Your task to perform on an android device: install app "Google Play Music" Image 0: 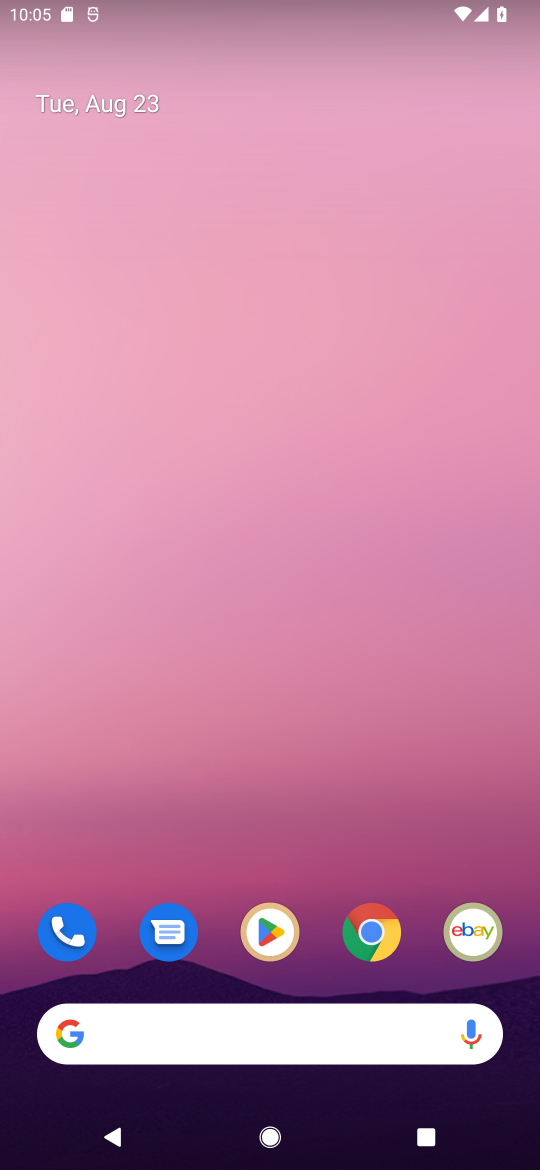
Step 0: click (280, 912)
Your task to perform on an android device: install app "Google Play Music" Image 1: 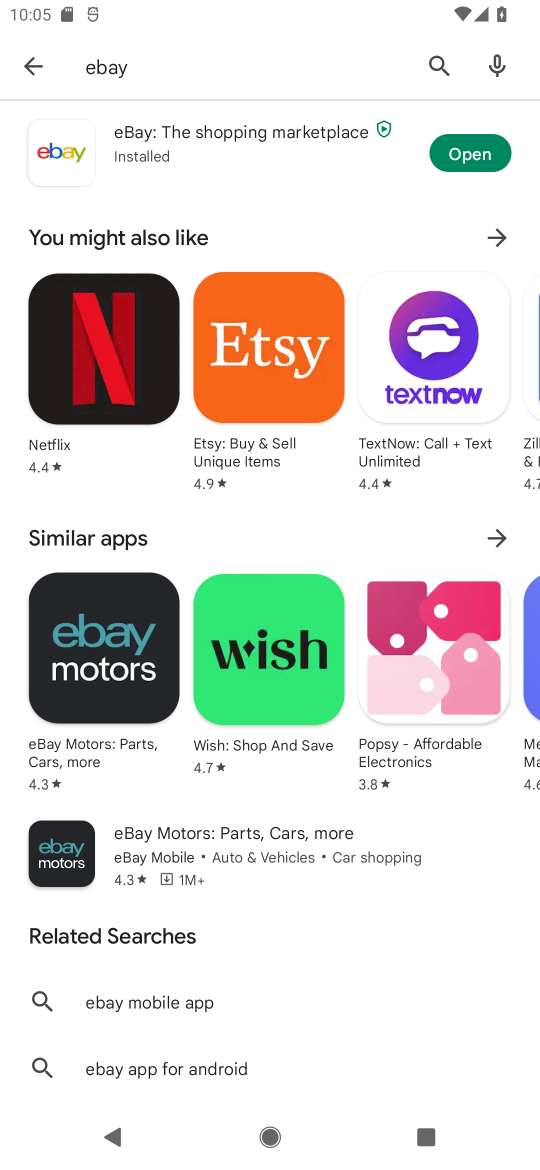
Step 1: click (443, 59)
Your task to perform on an android device: install app "Google Play Music" Image 2: 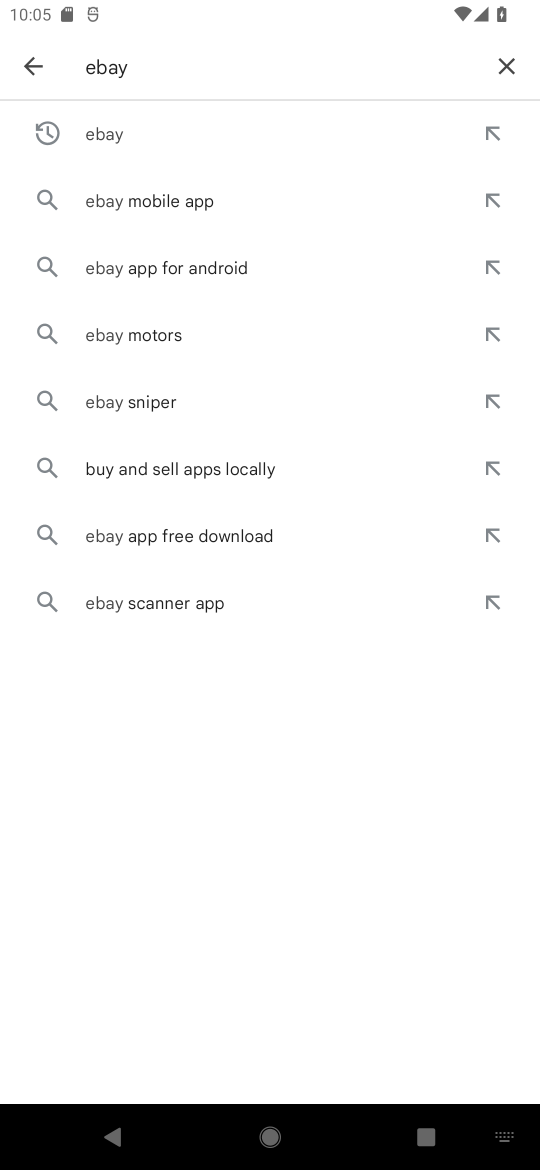
Step 2: click (499, 64)
Your task to perform on an android device: install app "Google Play Music" Image 3: 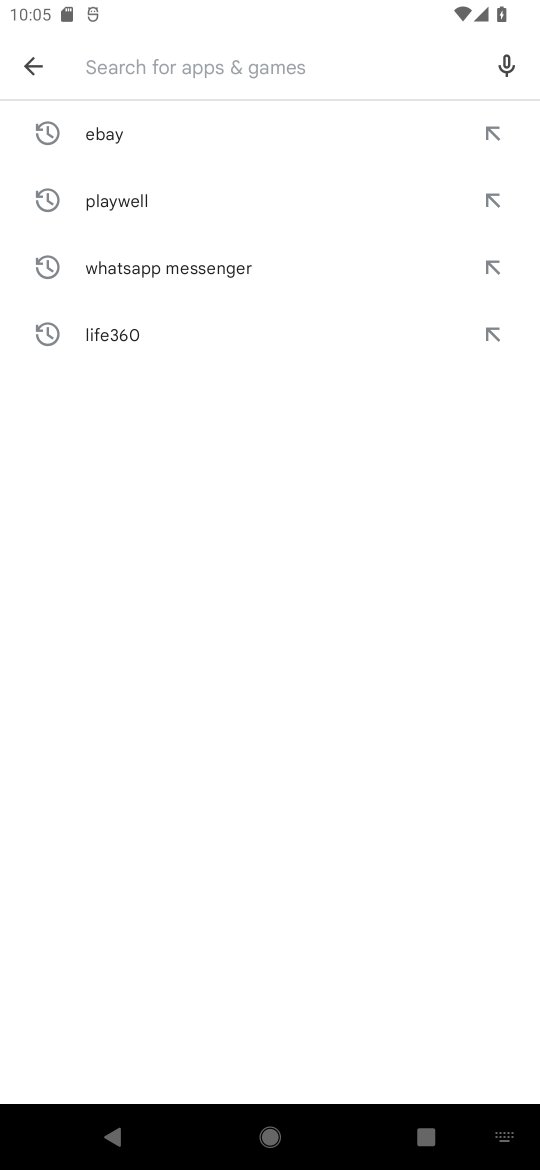
Step 3: click (141, 74)
Your task to perform on an android device: install app "Google Play Music" Image 4: 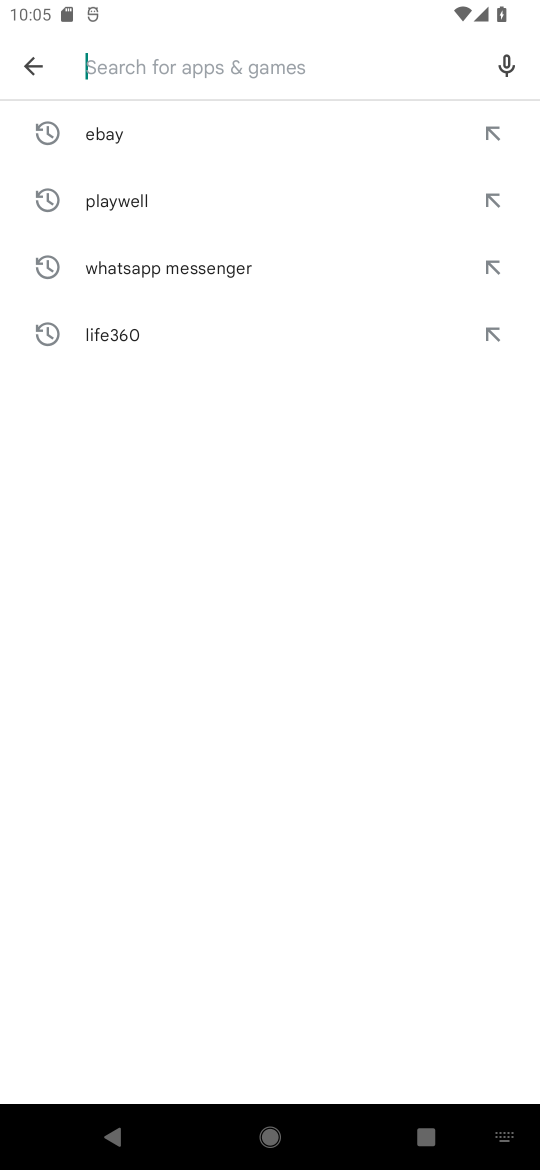
Step 4: type "Google Play Music"
Your task to perform on an android device: install app "Google Play Music" Image 5: 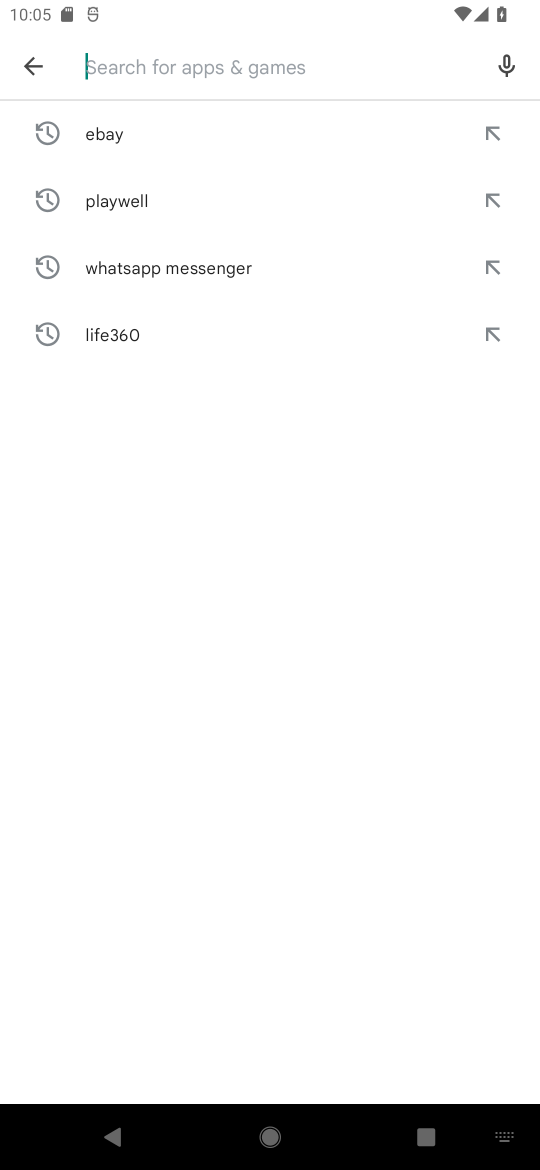
Step 5: click (244, 593)
Your task to perform on an android device: install app "Google Play Music" Image 6: 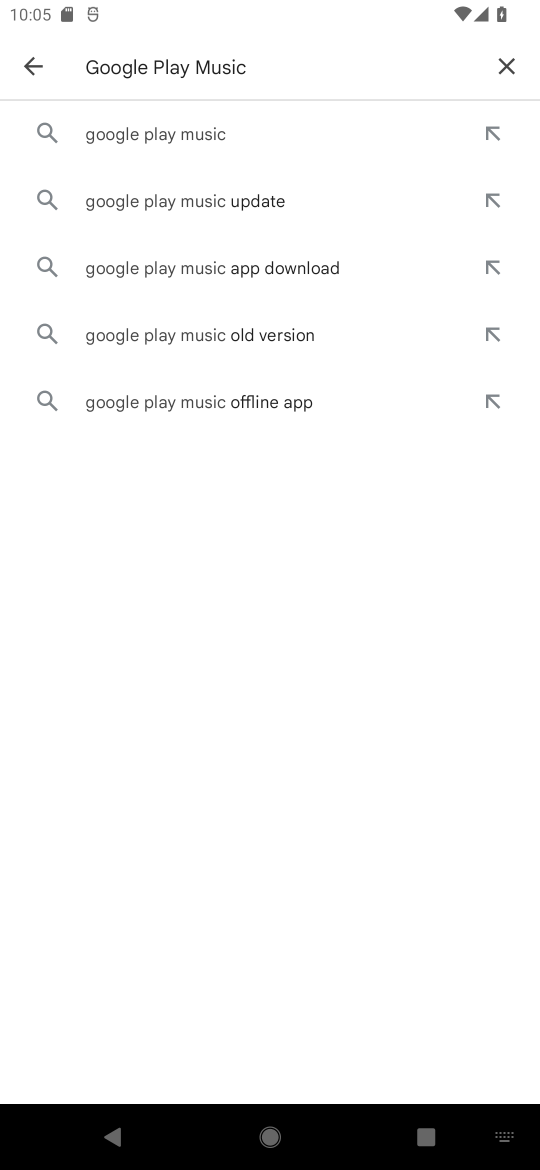
Step 6: click (232, 123)
Your task to perform on an android device: install app "Google Play Music" Image 7: 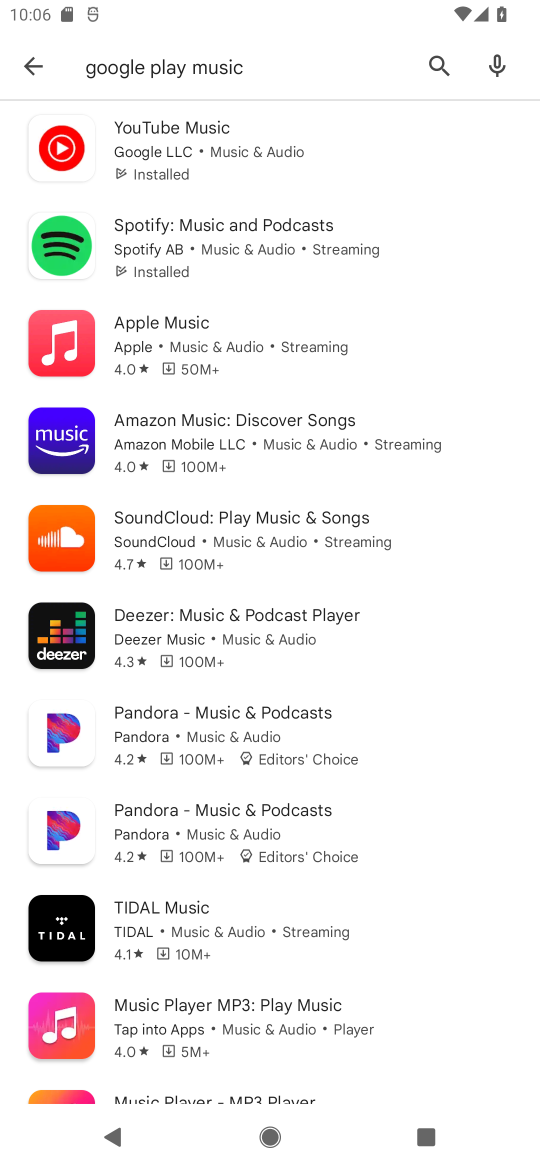
Step 7: task complete